Your task to perform on an android device: turn off data saver in the chrome app Image 0: 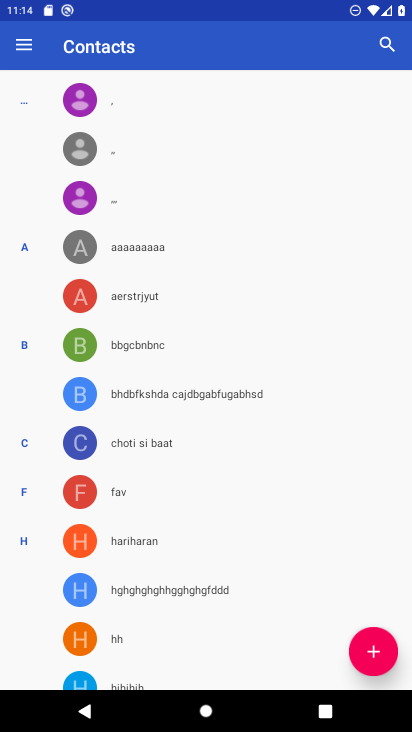
Step 0: press home button
Your task to perform on an android device: turn off data saver in the chrome app Image 1: 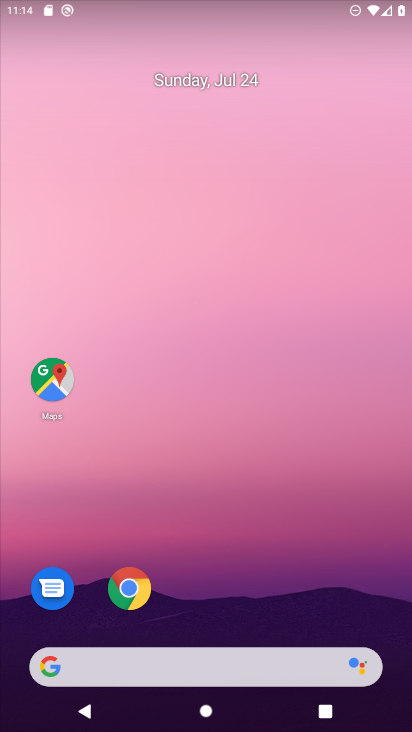
Step 1: click (119, 597)
Your task to perform on an android device: turn off data saver in the chrome app Image 2: 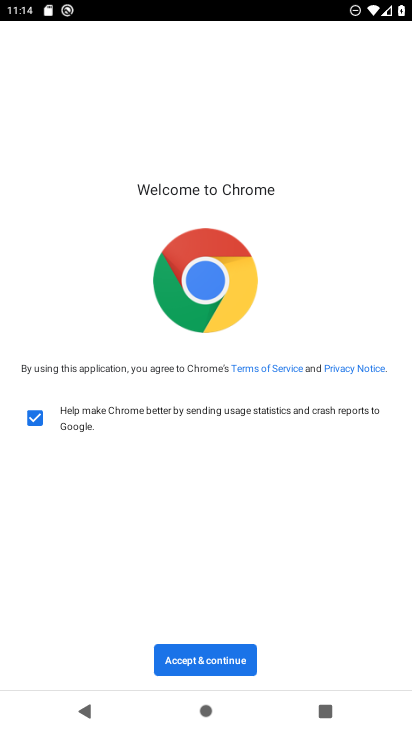
Step 2: click (175, 662)
Your task to perform on an android device: turn off data saver in the chrome app Image 3: 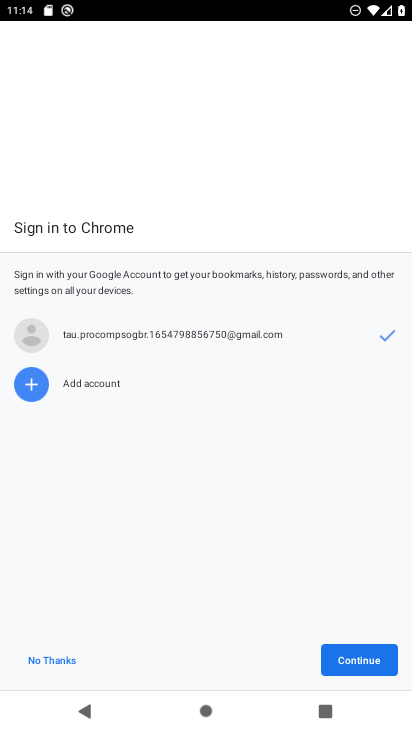
Step 3: click (380, 659)
Your task to perform on an android device: turn off data saver in the chrome app Image 4: 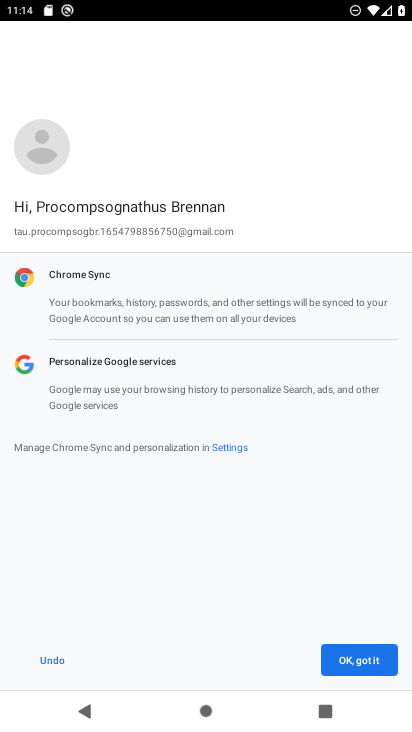
Step 4: click (380, 659)
Your task to perform on an android device: turn off data saver in the chrome app Image 5: 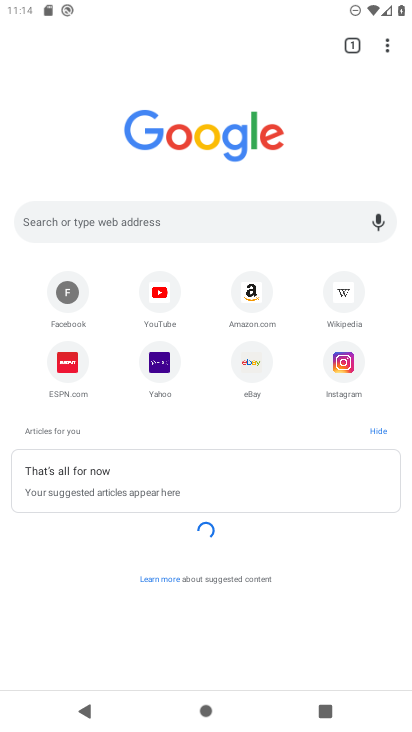
Step 5: click (394, 50)
Your task to perform on an android device: turn off data saver in the chrome app Image 6: 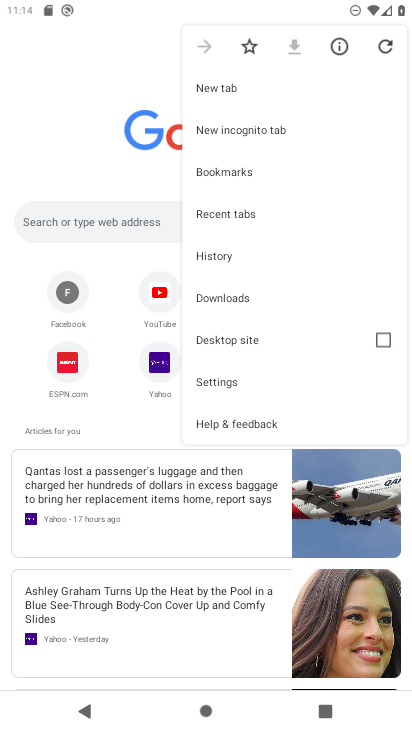
Step 6: click (273, 385)
Your task to perform on an android device: turn off data saver in the chrome app Image 7: 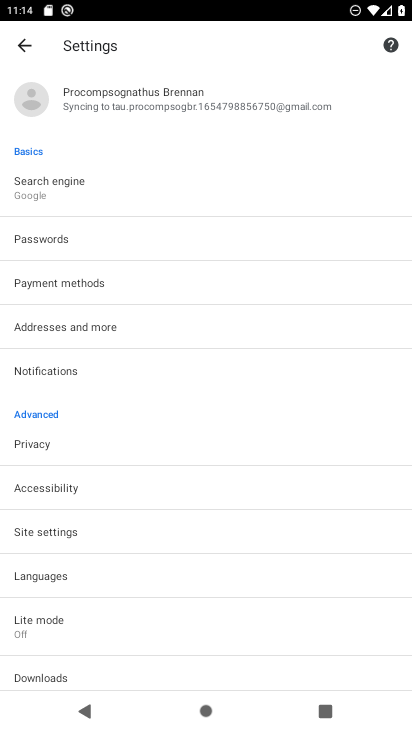
Step 7: click (166, 641)
Your task to perform on an android device: turn off data saver in the chrome app Image 8: 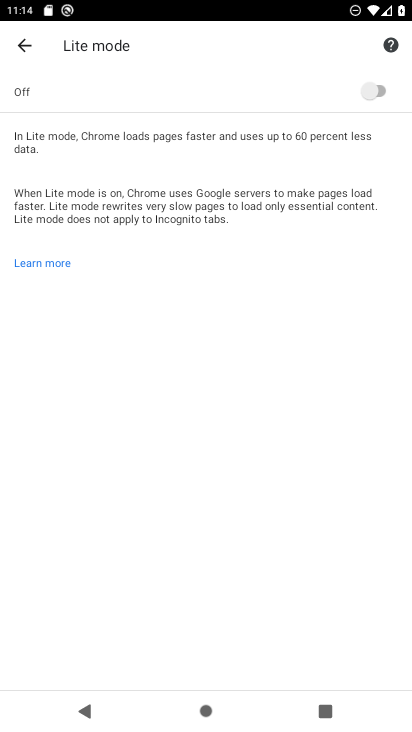
Step 8: task complete